Your task to perform on an android device: toggle show notifications on the lock screen Image 0: 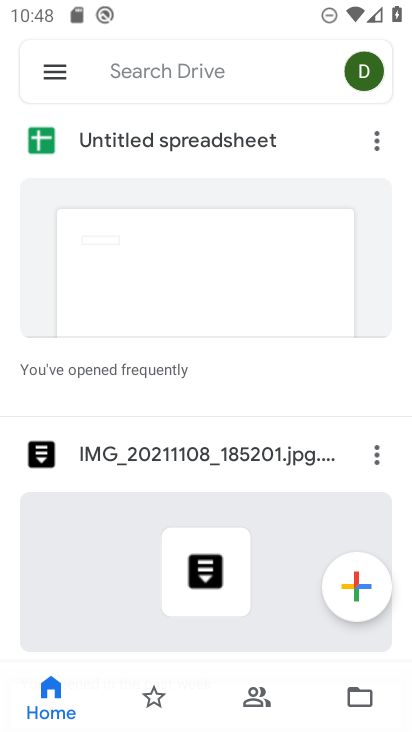
Step 0: press home button
Your task to perform on an android device: toggle show notifications on the lock screen Image 1: 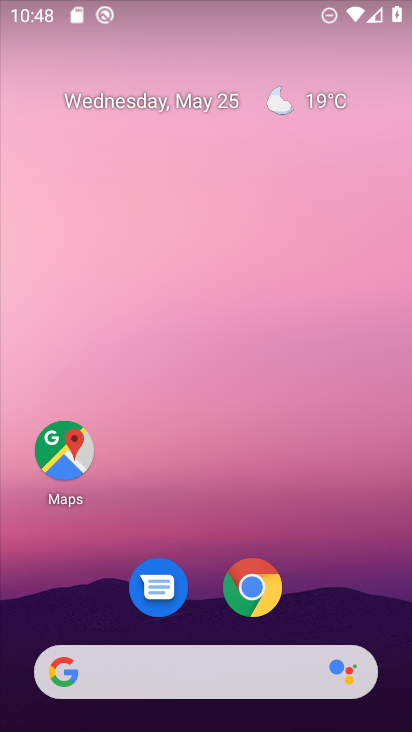
Step 1: drag from (387, 617) to (323, 56)
Your task to perform on an android device: toggle show notifications on the lock screen Image 2: 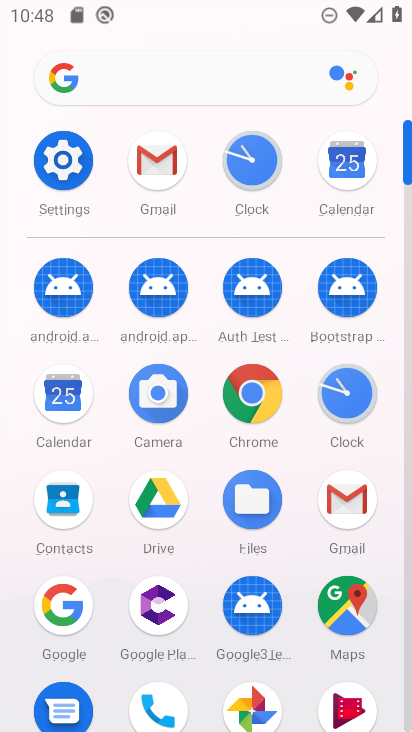
Step 2: click (406, 709)
Your task to perform on an android device: toggle show notifications on the lock screen Image 3: 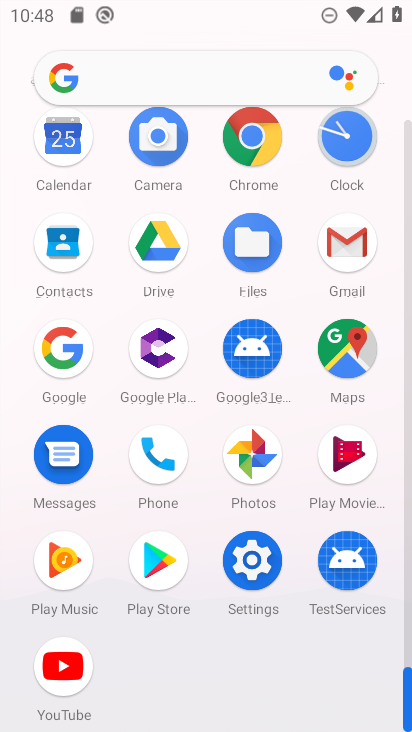
Step 3: click (253, 562)
Your task to perform on an android device: toggle show notifications on the lock screen Image 4: 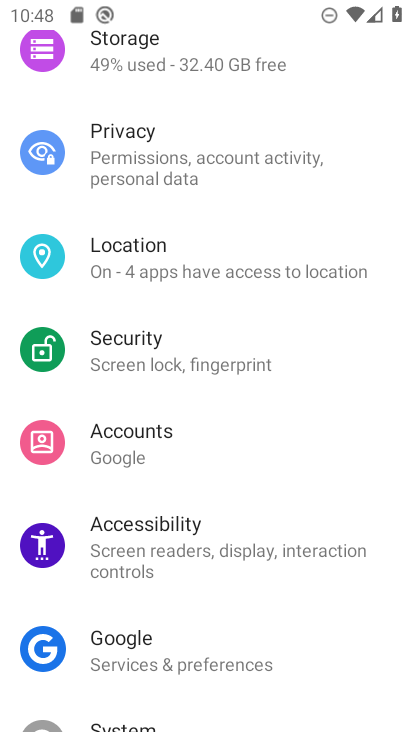
Step 4: drag from (349, 135) to (370, 518)
Your task to perform on an android device: toggle show notifications on the lock screen Image 5: 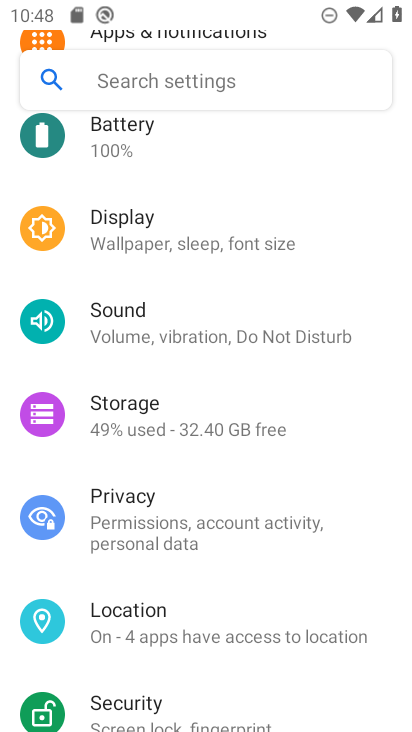
Step 5: drag from (365, 215) to (364, 590)
Your task to perform on an android device: toggle show notifications on the lock screen Image 6: 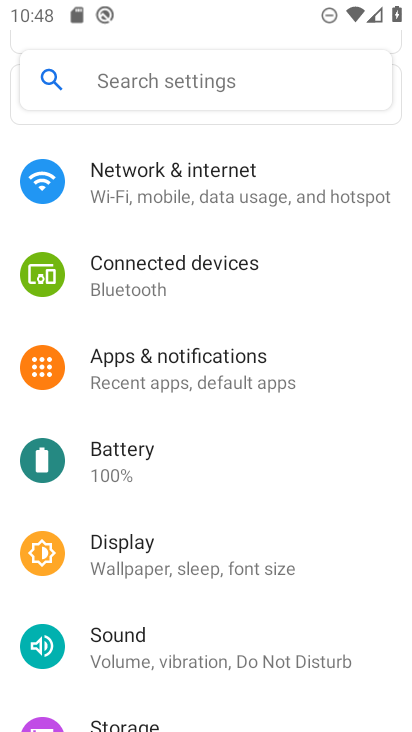
Step 6: click (146, 361)
Your task to perform on an android device: toggle show notifications on the lock screen Image 7: 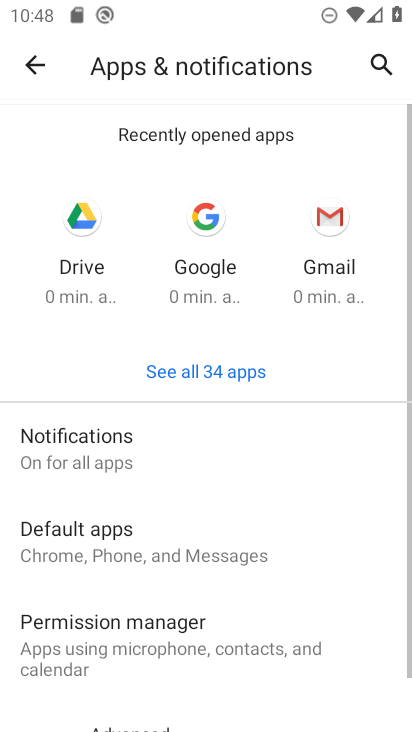
Step 7: click (72, 464)
Your task to perform on an android device: toggle show notifications on the lock screen Image 8: 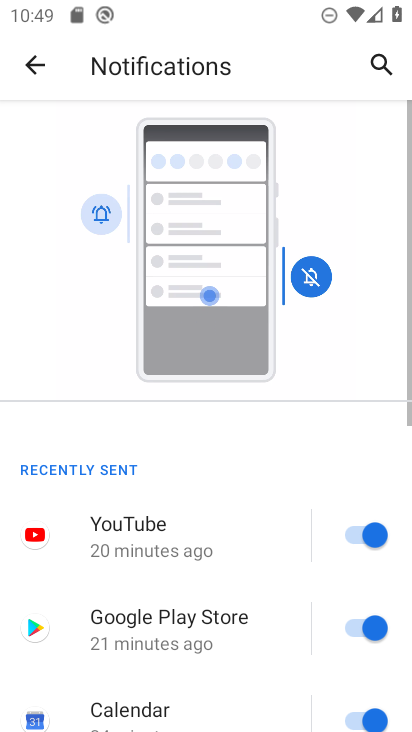
Step 8: drag from (274, 607) to (274, 116)
Your task to perform on an android device: toggle show notifications on the lock screen Image 9: 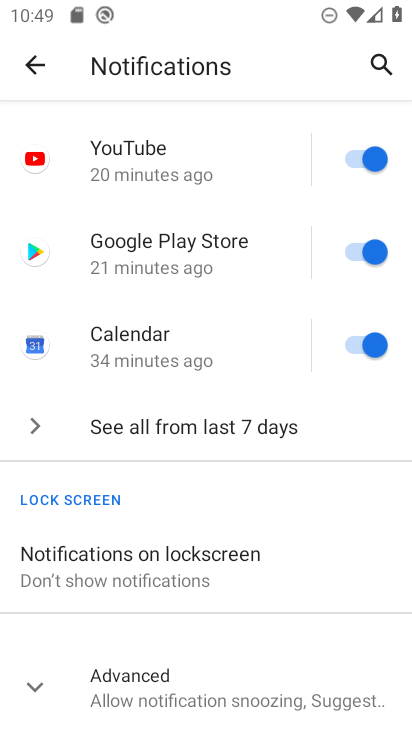
Step 9: click (114, 555)
Your task to perform on an android device: toggle show notifications on the lock screen Image 10: 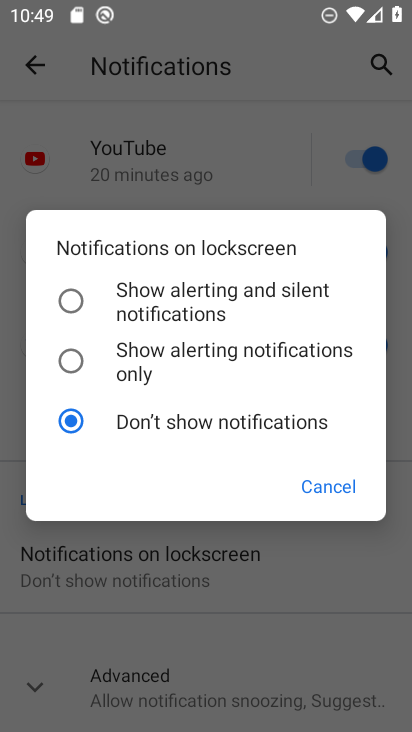
Step 10: click (74, 299)
Your task to perform on an android device: toggle show notifications on the lock screen Image 11: 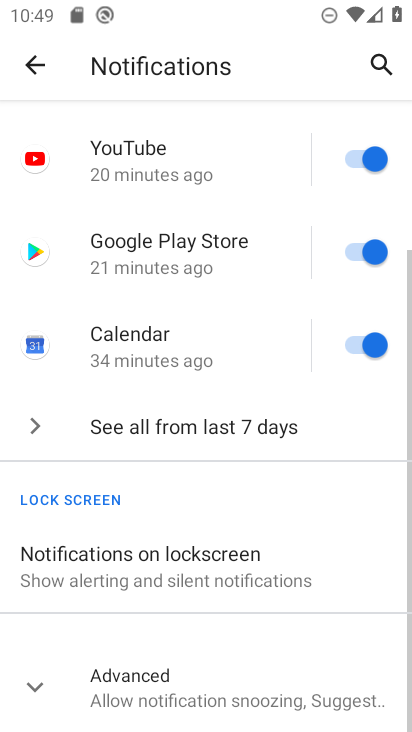
Step 11: task complete